Your task to perform on an android device: Go to Amazon Image 0: 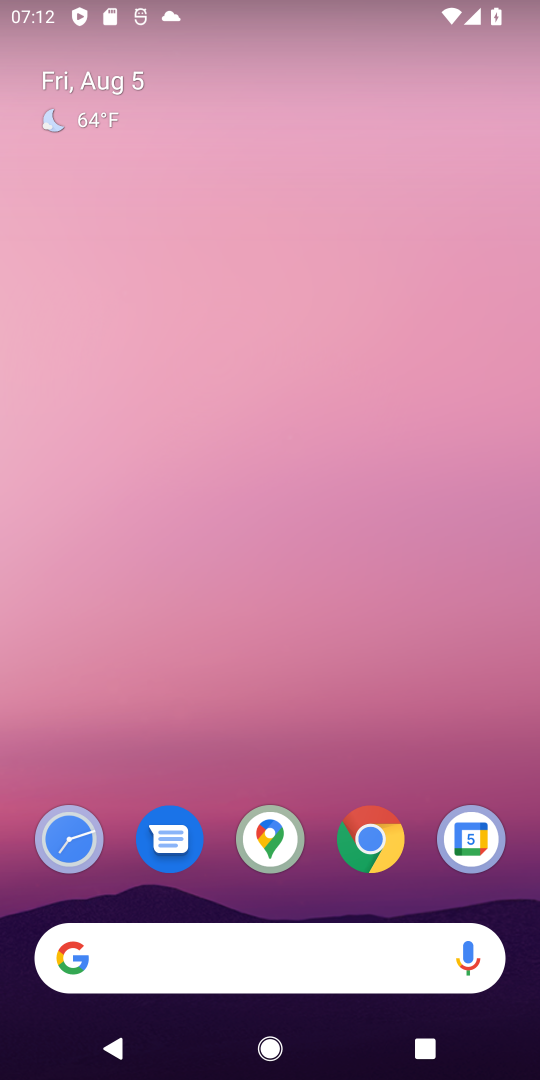
Step 0: click (367, 839)
Your task to perform on an android device: Go to Amazon Image 1: 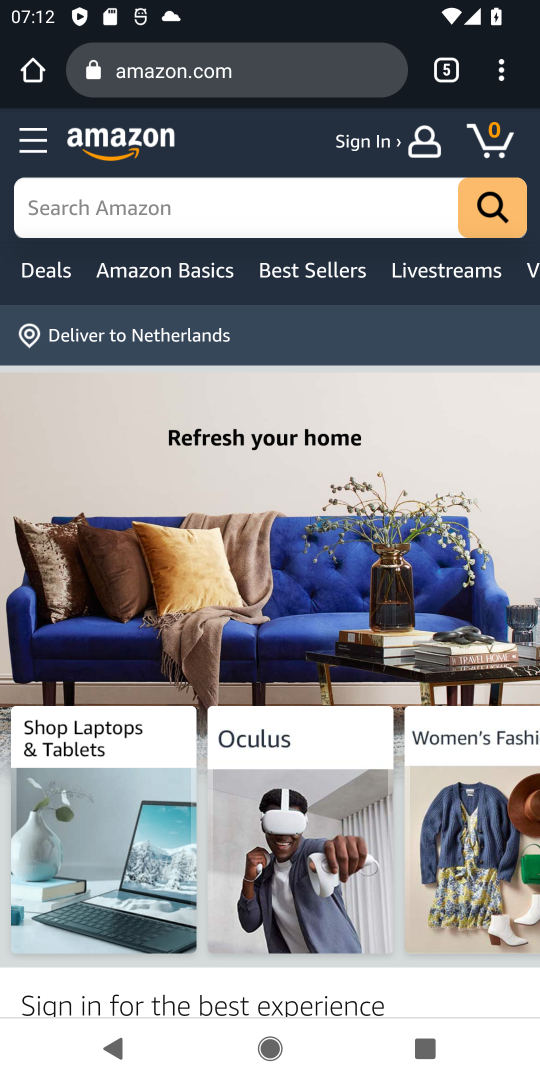
Step 1: task complete